Your task to perform on an android device: Go to Google maps Image 0: 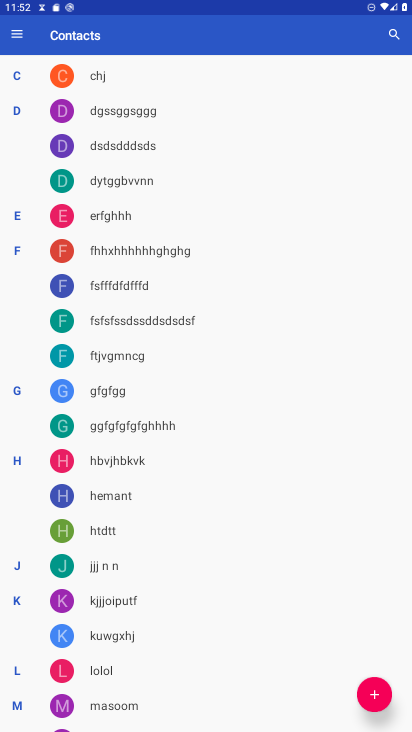
Step 0: press home button
Your task to perform on an android device: Go to Google maps Image 1: 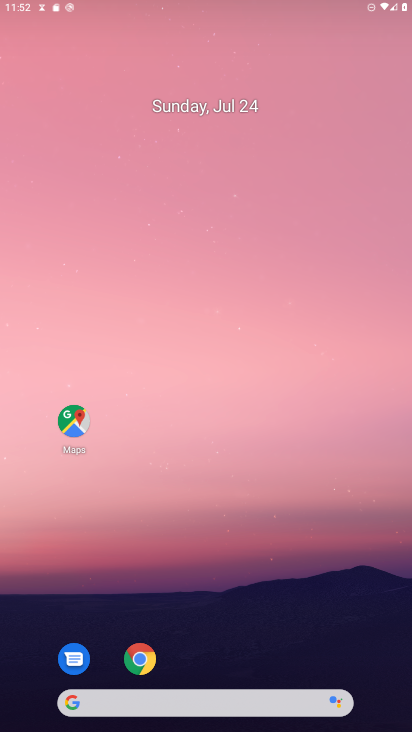
Step 1: drag from (171, 637) to (169, 41)
Your task to perform on an android device: Go to Google maps Image 2: 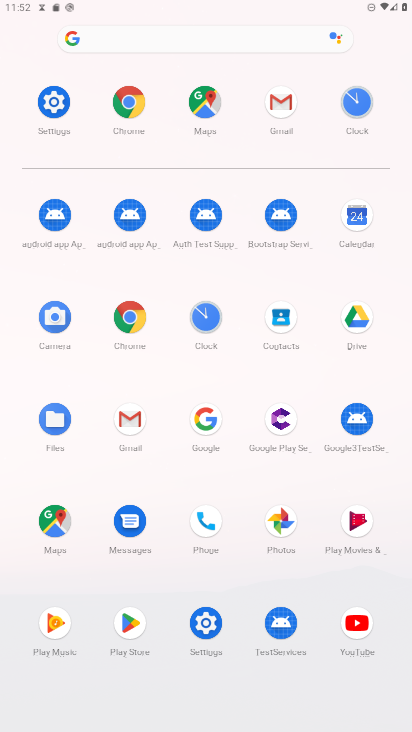
Step 2: click (207, 102)
Your task to perform on an android device: Go to Google maps Image 3: 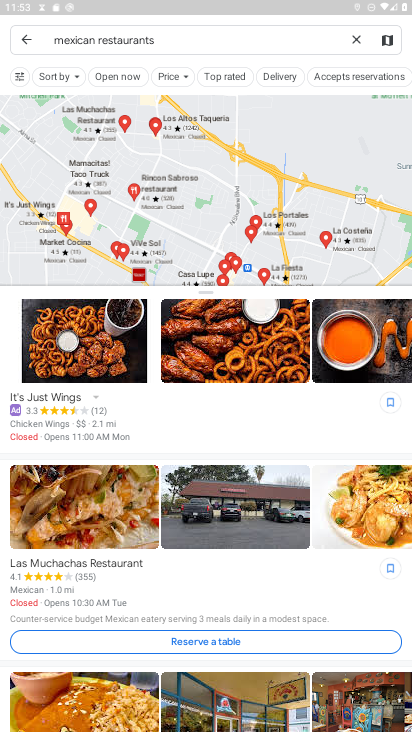
Step 3: task complete